Your task to perform on an android device: add a contact in the contacts app Image 0: 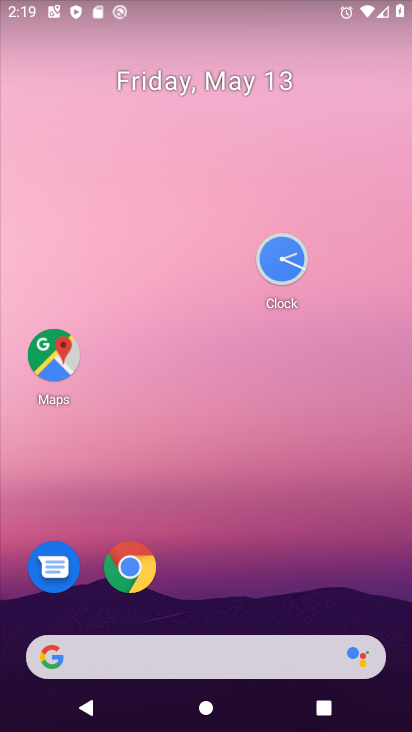
Step 0: drag from (267, 575) to (244, 62)
Your task to perform on an android device: add a contact in the contacts app Image 1: 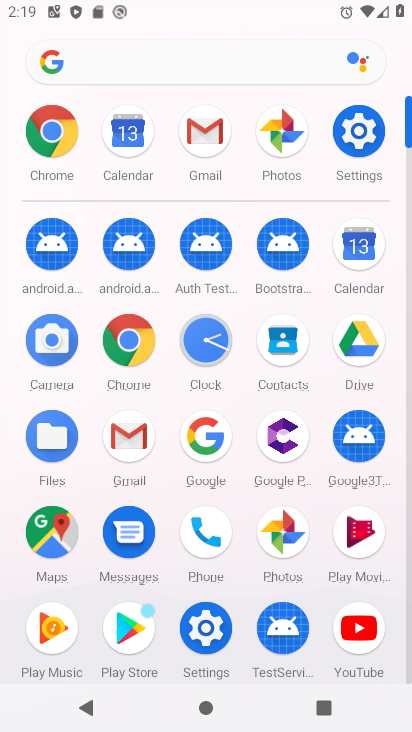
Step 1: click (408, 669)
Your task to perform on an android device: add a contact in the contacts app Image 2: 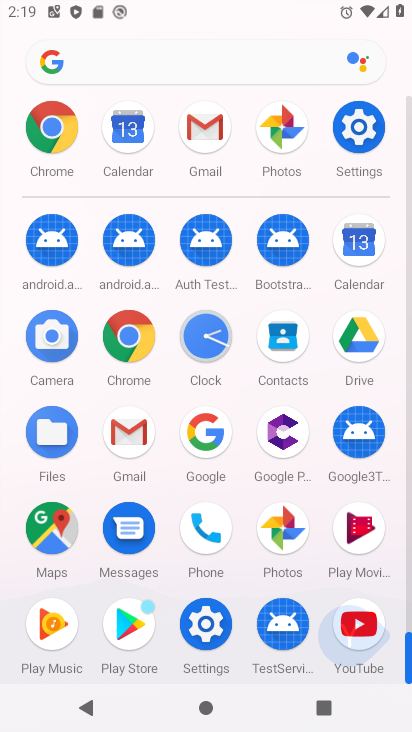
Step 2: click (408, 669)
Your task to perform on an android device: add a contact in the contacts app Image 3: 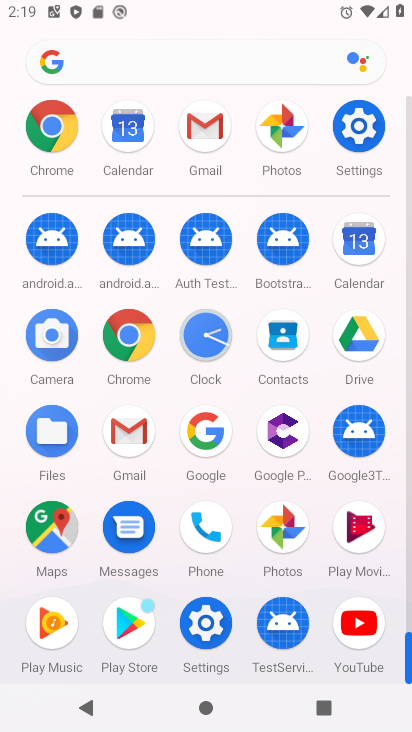
Step 3: click (408, 669)
Your task to perform on an android device: add a contact in the contacts app Image 4: 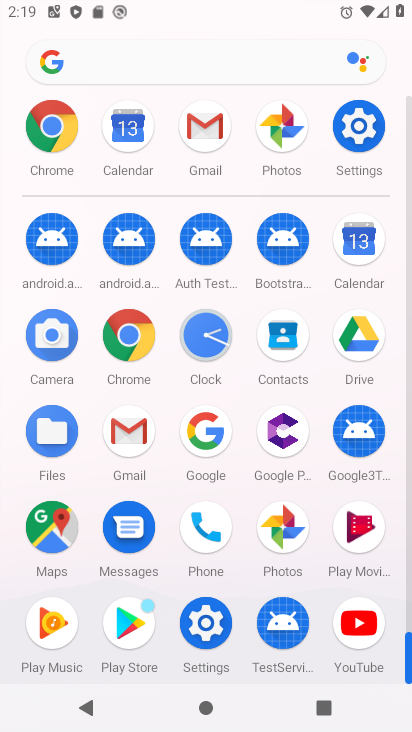
Step 4: click (277, 354)
Your task to perform on an android device: add a contact in the contacts app Image 5: 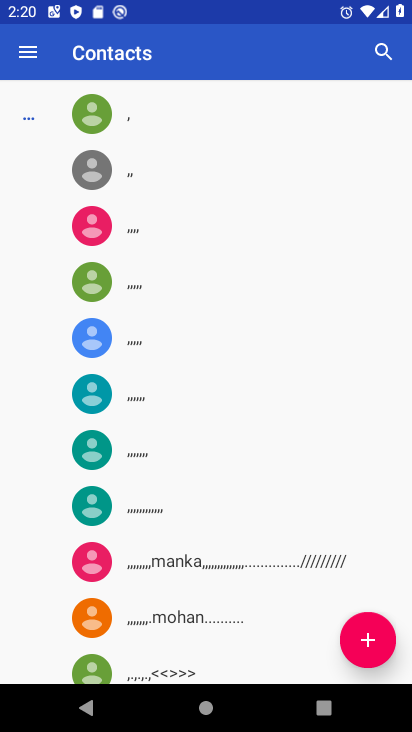
Step 5: click (364, 657)
Your task to perform on an android device: add a contact in the contacts app Image 6: 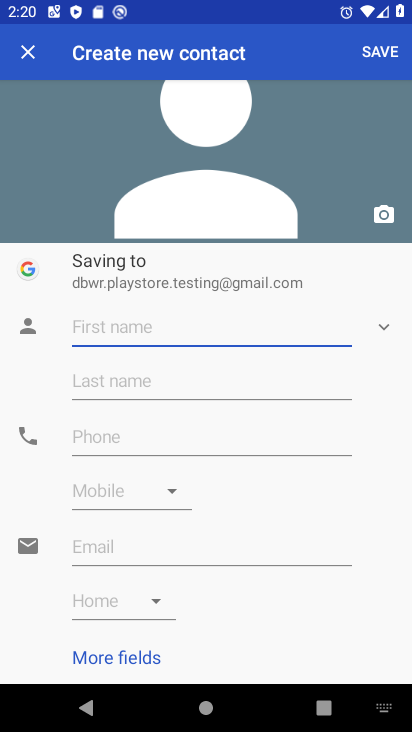
Step 6: type "dscs"
Your task to perform on an android device: add a contact in the contacts app Image 7: 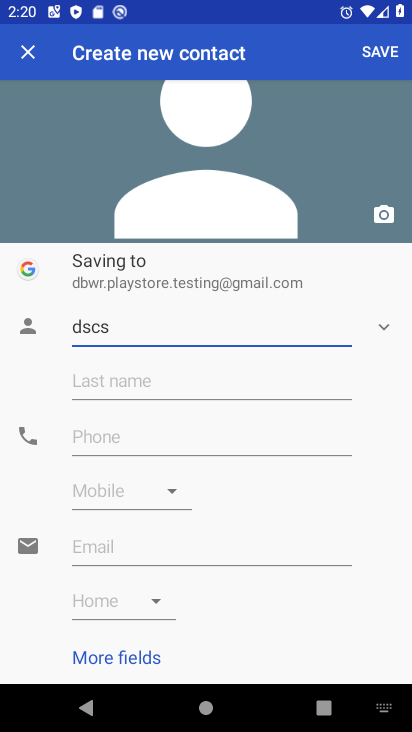
Step 7: click (254, 386)
Your task to perform on an android device: add a contact in the contacts app Image 8: 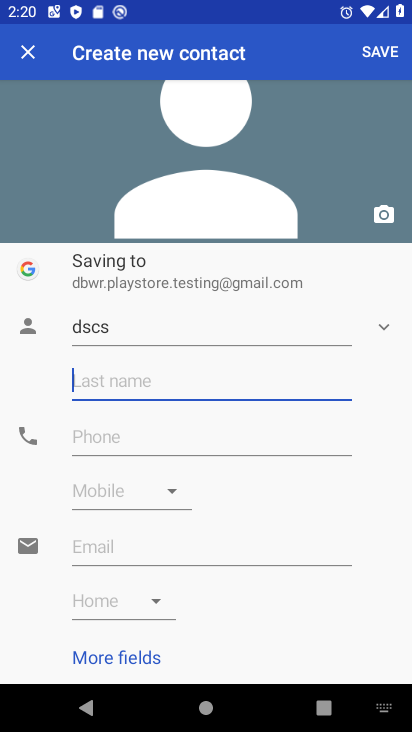
Step 8: type "csd"
Your task to perform on an android device: add a contact in the contacts app Image 9: 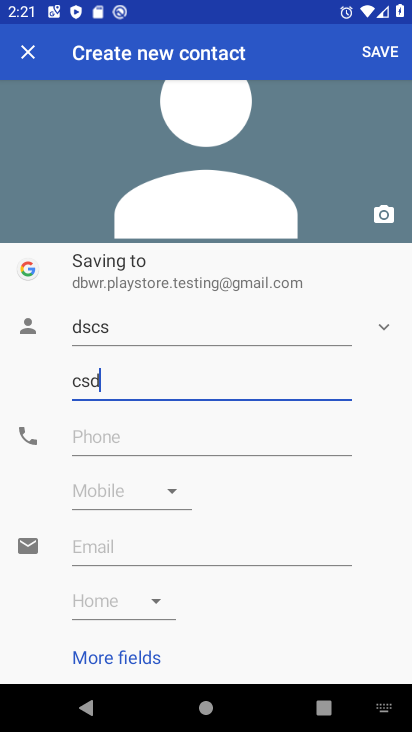
Step 9: click (329, 446)
Your task to perform on an android device: add a contact in the contacts app Image 10: 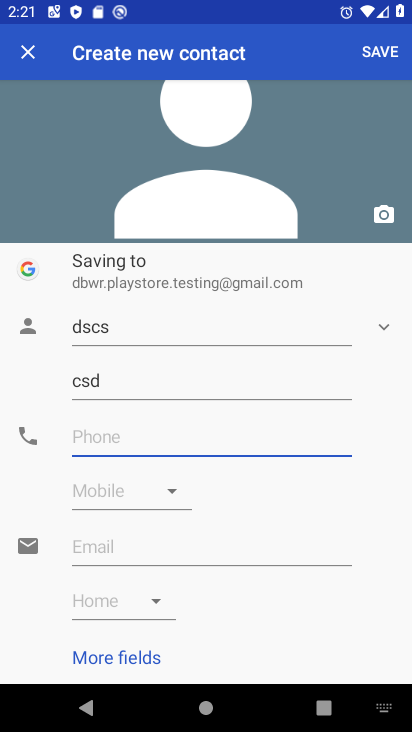
Step 10: type "34r43rt43r"
Your task to perform on an android device: add a contact in the contacts app Image 11: 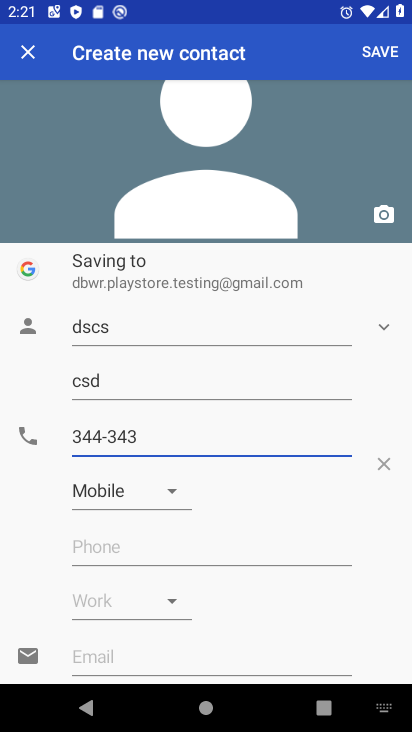
Step 11: type "3434534"
Your task to perform on an android device: add a contact in the contacts app Image 12: 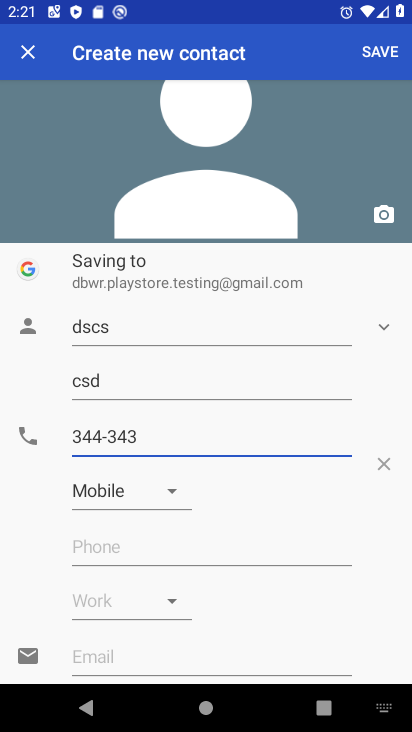
Step 12: click (369, 39)
Your task to perform on an android device: add a contact in the contacts app Image 13: 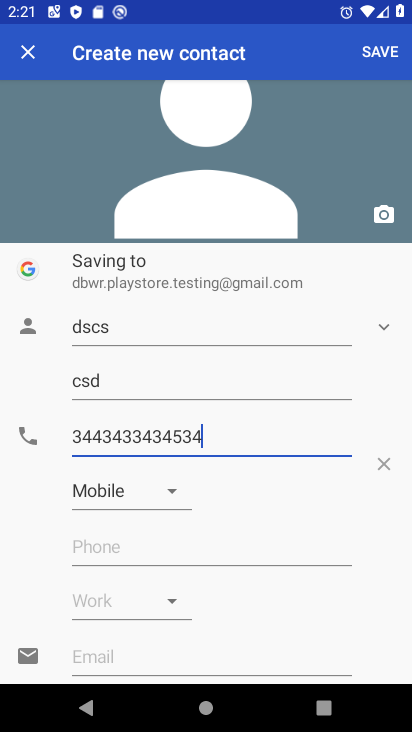
Step 13: task complete